Your task to perform on an android device: Open calendar and show me the first week of next month Image 0: 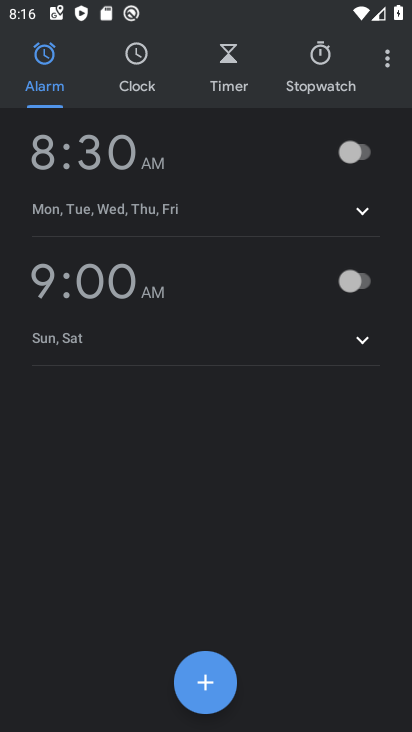
Step 0: press home button
Your task to perform on an android device: Open calendar and show me the first week of next month Image 1: 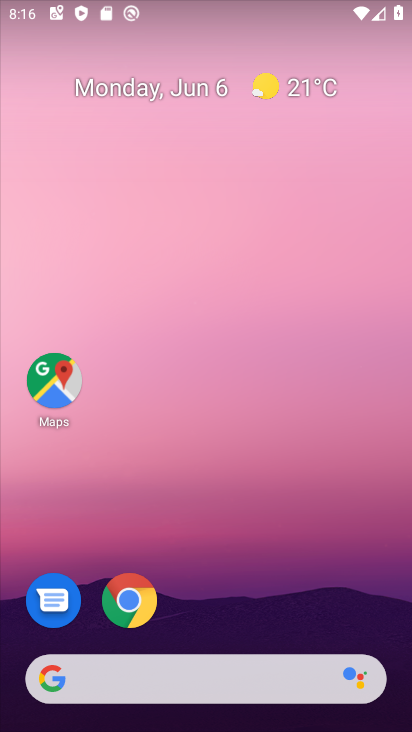
Step 1: drag from (365, 606) to (346, 63)
Your task to perform on an android device: Open calendar and show me the first week of next month Image 2: 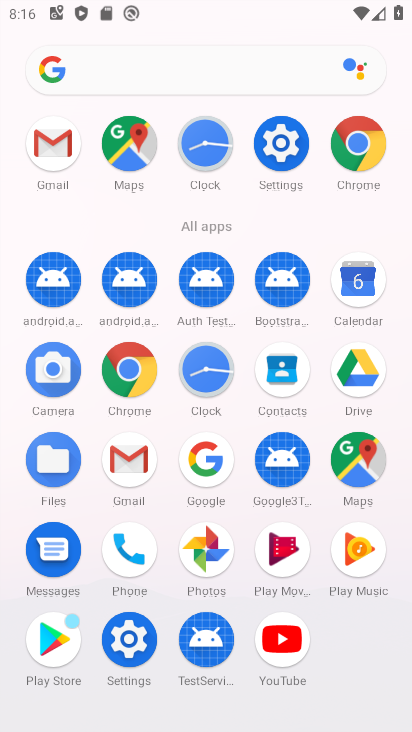
Step 2: click (359, 282)
Your task to perform on an android device: Open calendar and show me the first week of next month Image 3: 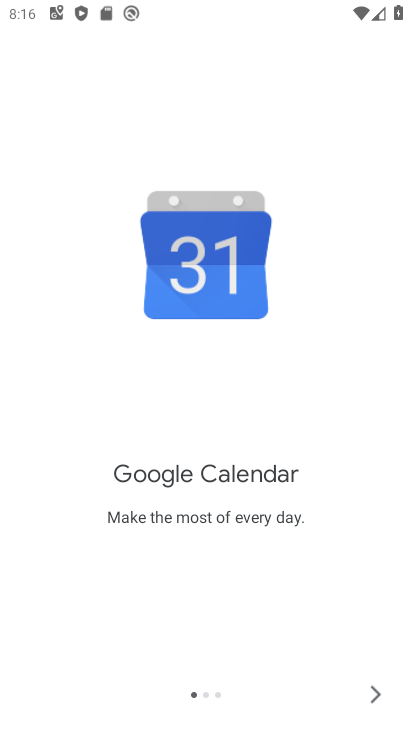
Step 3: click (374, 696)
Your task to perform on an android device: Open calendar and show me the first week of next month Image 4: 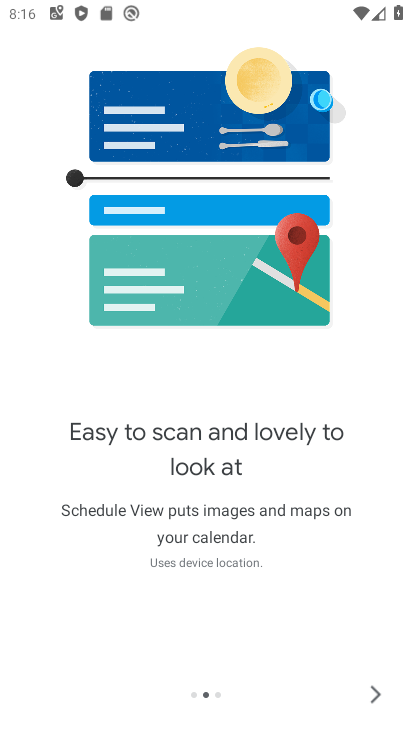
Step 4: click (374, 696)
Your task to perform on an android device: Open calendar and show me the first week of next month Image 5: 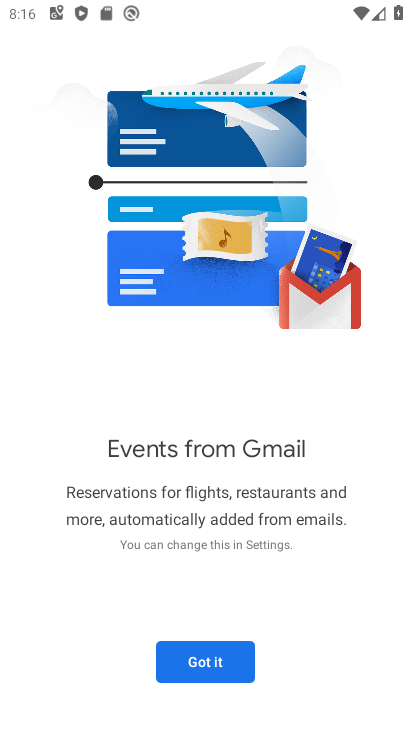
Step 5: click (223, 663)
Your task to perform on an android device: Open calendar and show me the first week of next month Image 6: 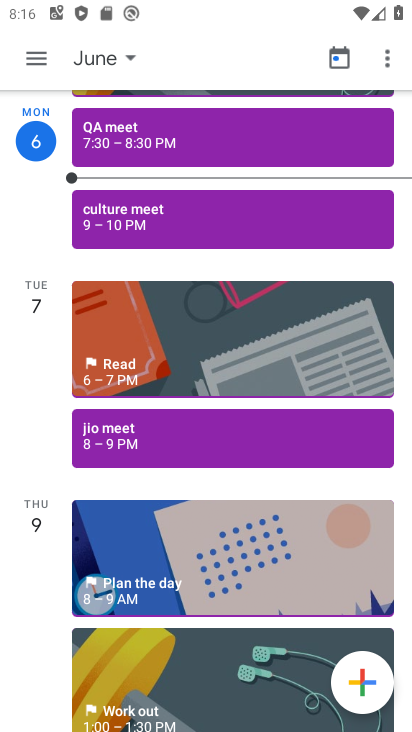
Step 6: click (30, 56)
Your task to perform on an android device: Open calendar and show me the first week of next month Image 7: 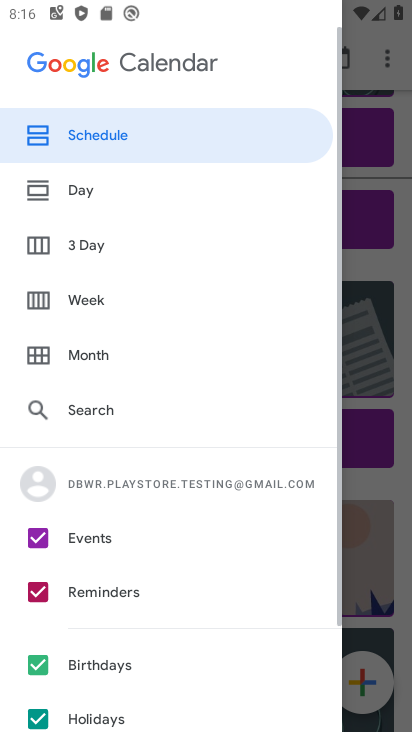
Step 7: click (91, 302)
Your task to perform on an android device: Open calendar and show me the first week of next month Image 8: 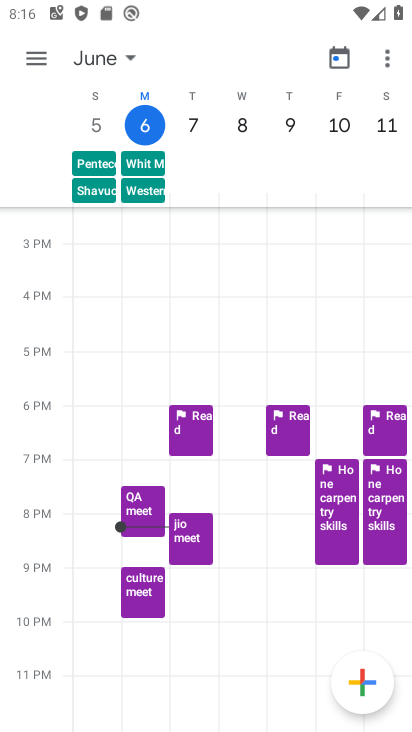
Step 8: click (128, 53)
Your task to perform on an android device: Open calendar and show me the first week of next month Image 9: 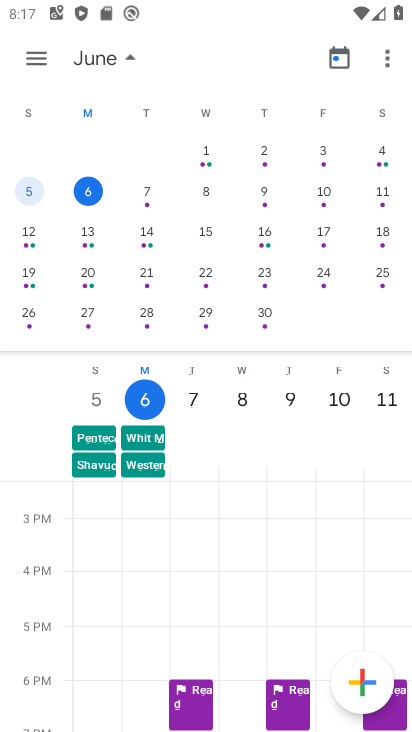
Step 9: drag from (379, 233) to (70, 159)
Your task to perform on an android device: Open calendar and show me the first week of next month Image 10: 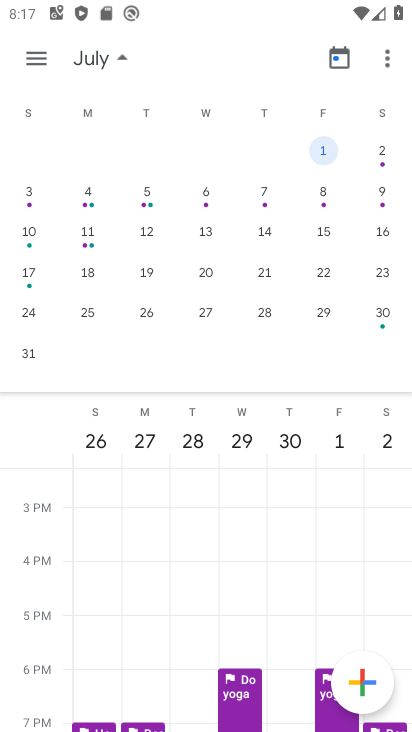
Step 10: click (21, 198)
Your task to perform on an android device: Open calendar and show me the first week of next month Image 11: 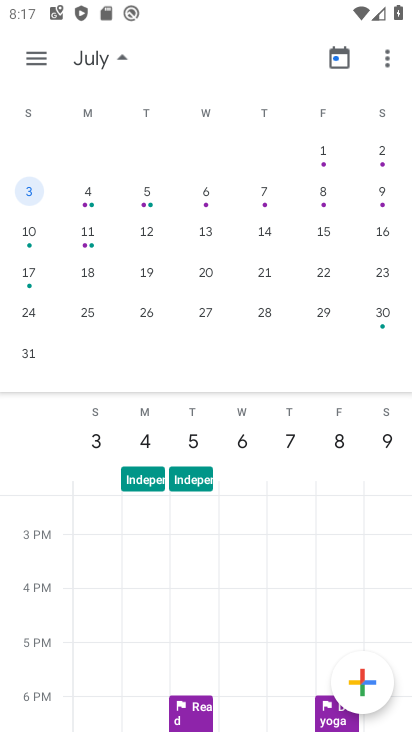
Step 11: task complete